Your task to perform on an android device: check storage Image 0: 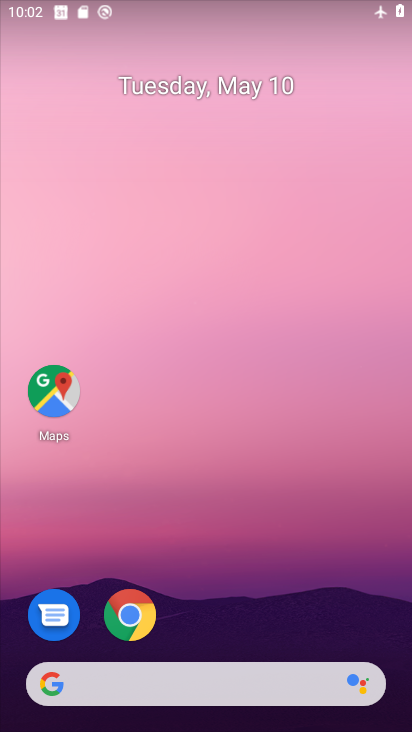
Step 0: drag from (227, 567) to (225, 135)
Your task to perform on an android device: check storage Image 1: 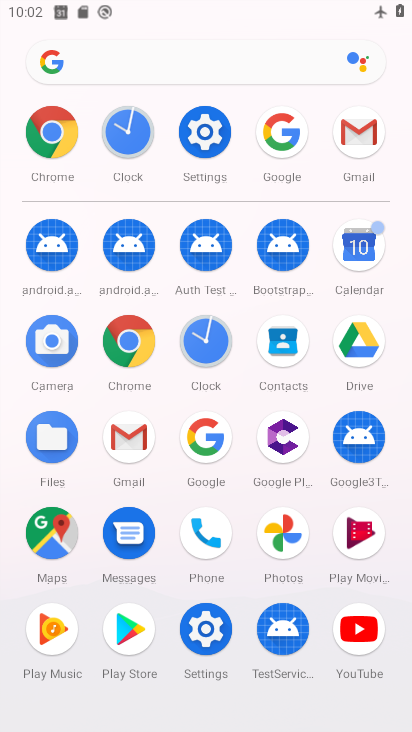
Step 1: click (211, 631)
Your task to perform on an android device: check storage Image 2: 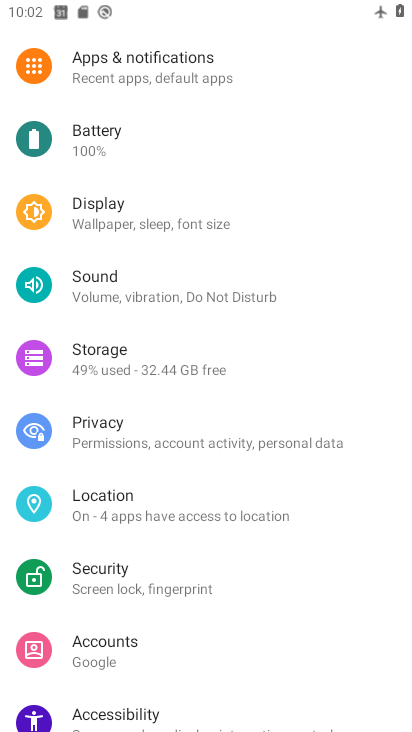
Step 2: click (294, 657)
Your task to perform on an android device: check storage Image 3: 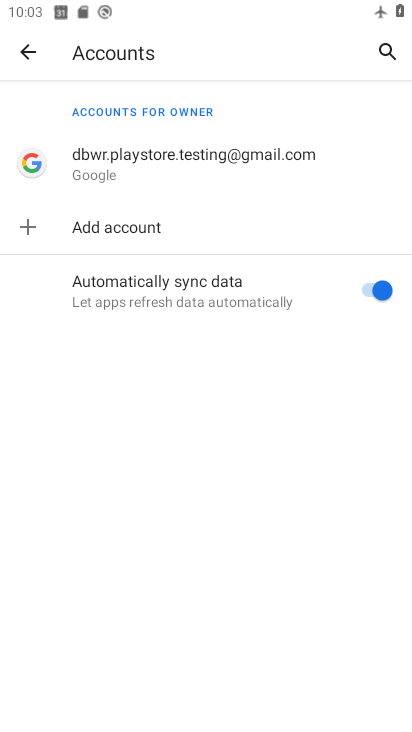
Step 3: drag from (184, 607) to (283, 312)
Your task to perform on an android device: check storage Image 4: 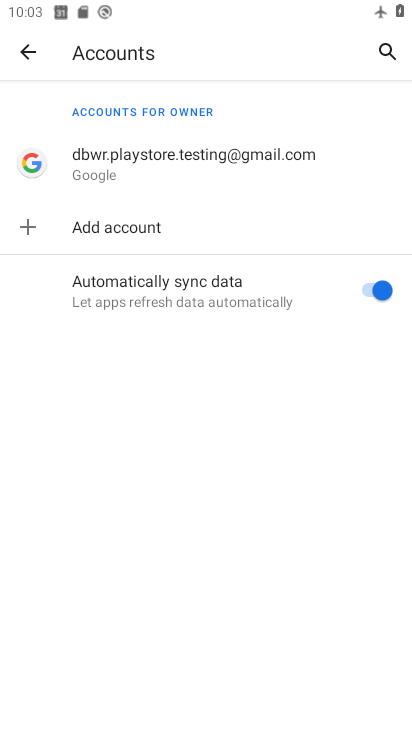
Step 4: press home button
Your task to perform on an android device: check storage Image 5: 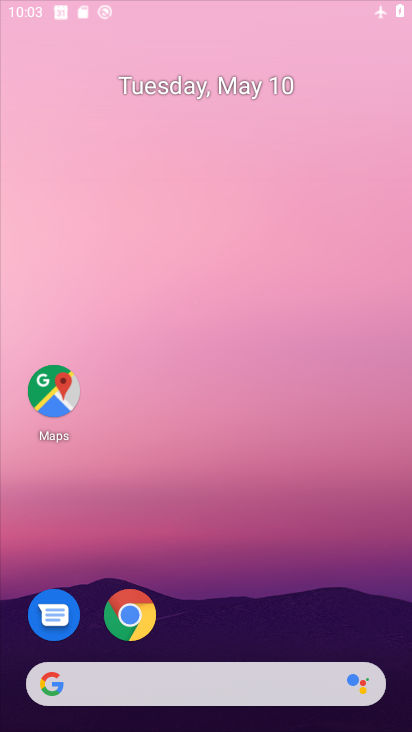
Step 5: drag from (170, 653) to (185, 255)
Your task to perform on an android device: check storage Image 6: 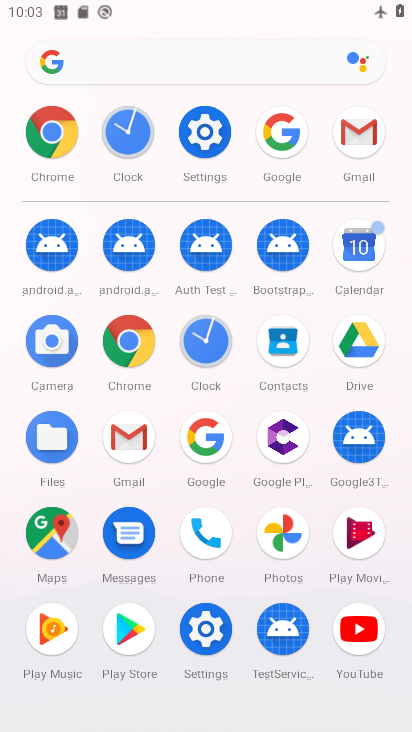
Step 6: click (198, 142)
Your task to perform on an android device: check storage Image 7: 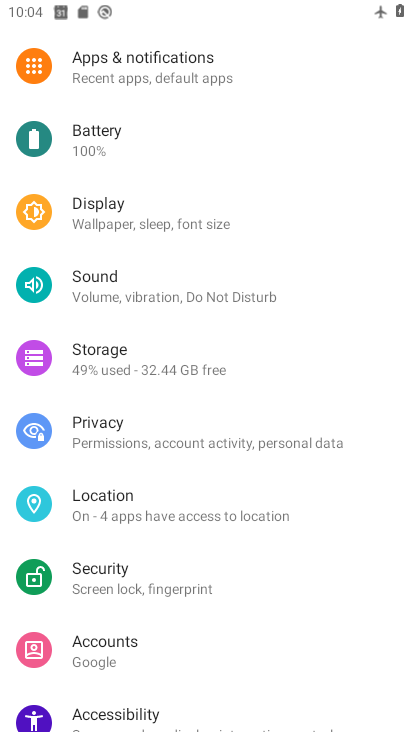
Step 7: click (139, 354)
Your task to perform on an android device: check storage Image 8: 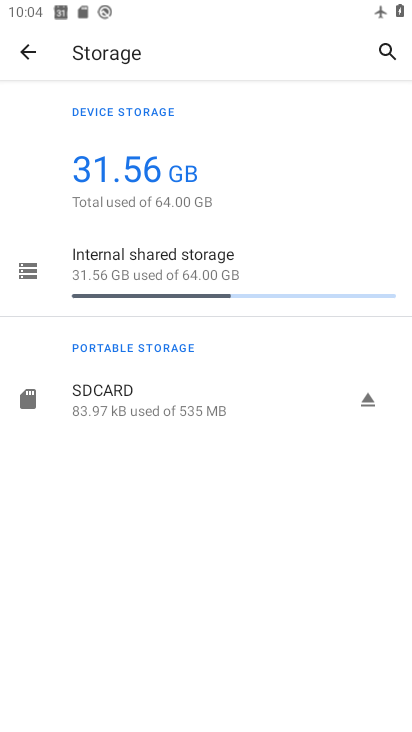
Step 8: task complete